Your task to perform on an android device: What's the weather going to be this weekend? Image 0: 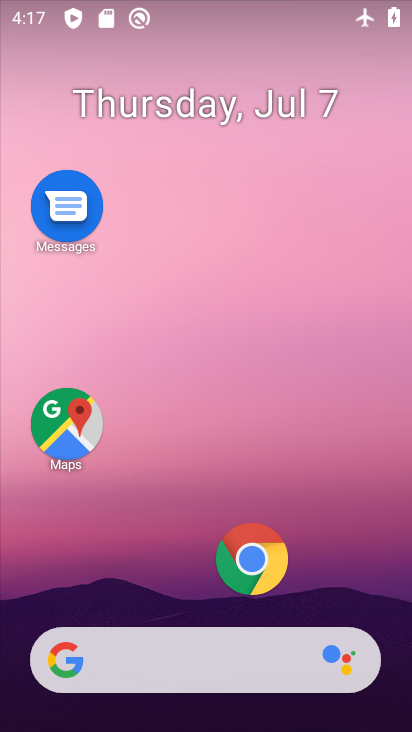
Step 0: drag from (171, 618) to (272, 184)
Your task to perform on an android device: What's the weather going to be this weekend? Image 1: 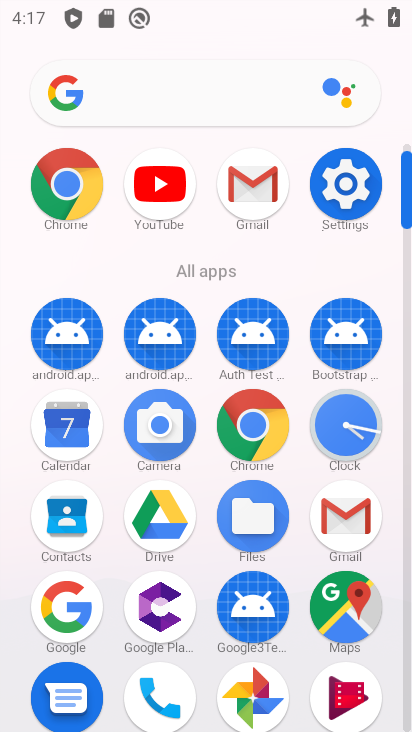
Step 1: click (85, 627)
Your task to perform on an android device: What's the weather going to be this weekend? Image 2: 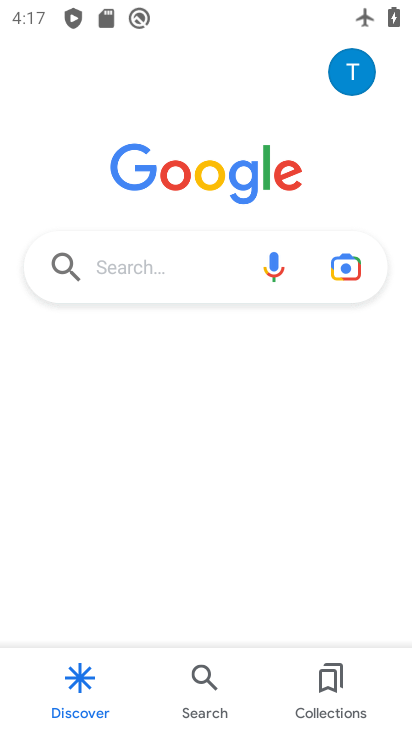
Step 2: click (115, 284)
Your task to perform on an android device: What's the weather going to be this weekend? Image 3: 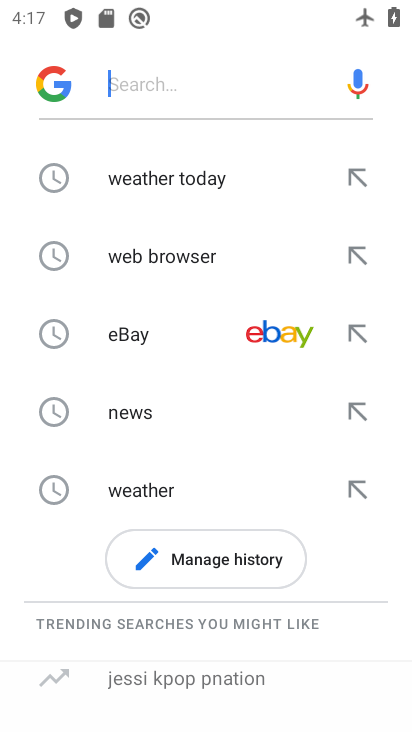
Step 3: click (145, 194)
Your task to perform on an android device: What's the weather going to be this weekend? Image 4: 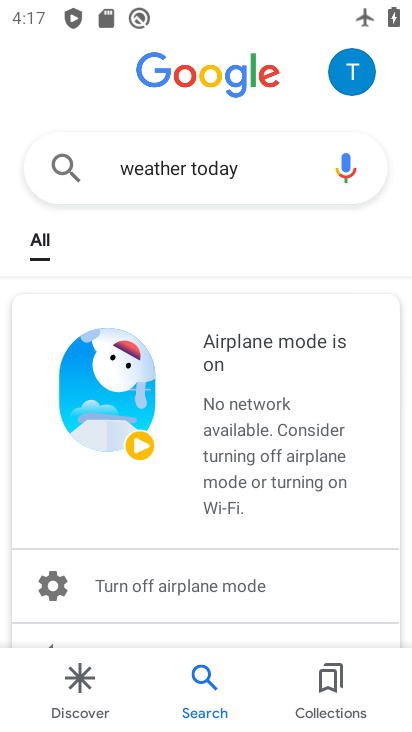
Step 4: task complete